Your task to perform on an android device: Search for vegetarian restaurants on Maps Image 0: 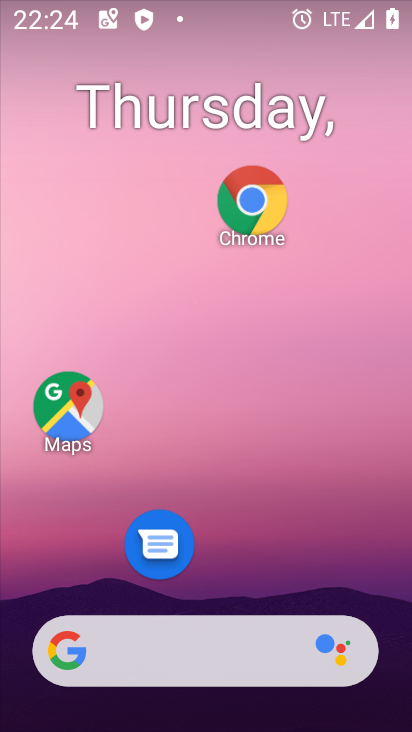
Step 0: click (84, 385)
Your task to perform on an android device: Search for vegetarian restaurants on Maps Image 1: 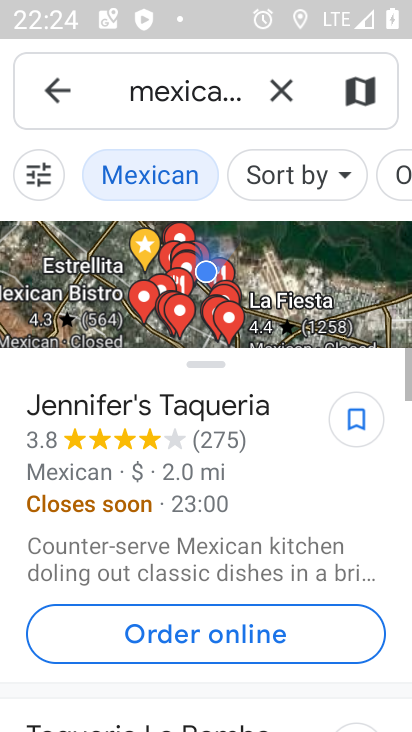
Step 1: click (288, 91)
Your task to perform on an android device: Search for vegetarian restaurants on Maps Image 2: 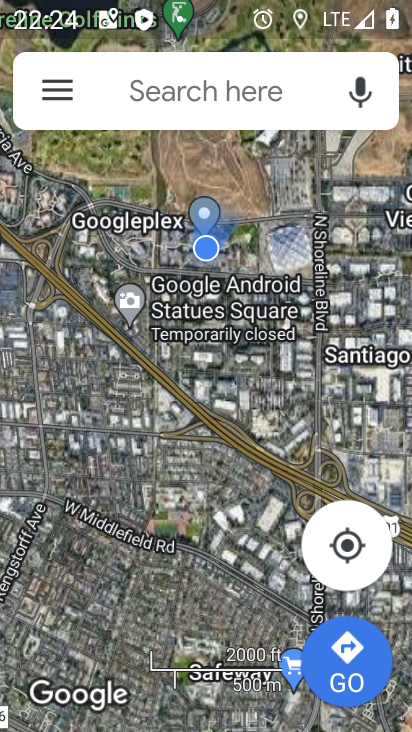
Step 2: click (288, 91)
Your task to perform on an android device: Search for vegetarian restaurants on Maps Image 3: 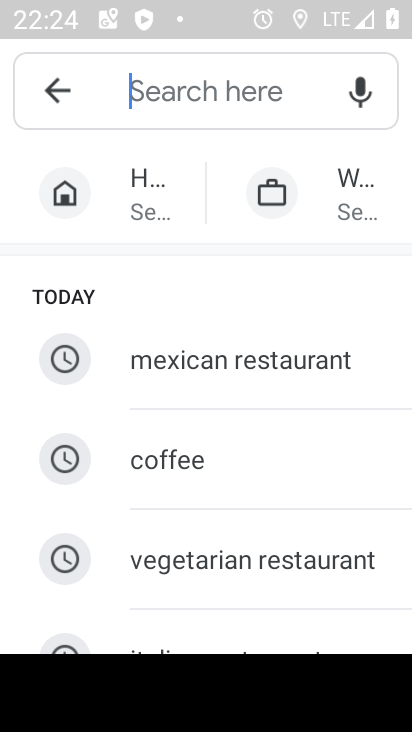
Step 3: click (167, 575)
Your task to perform on an android device: Search for vegetarian restaurants on Maps Image 4: 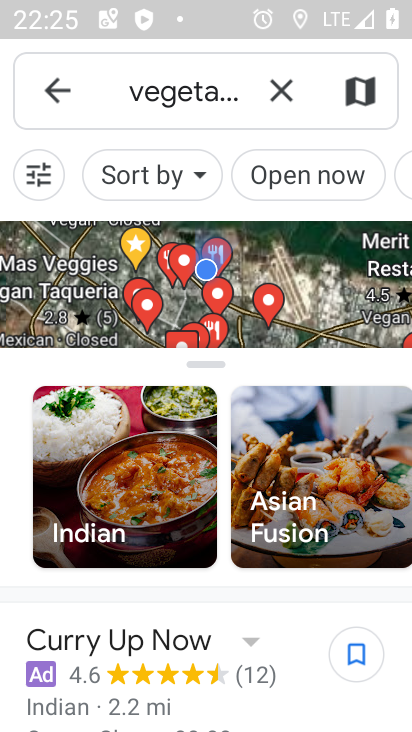
Step 4: task complete